Your task to perform on an android device: turn off notifications settings in the gmail app Image 0: 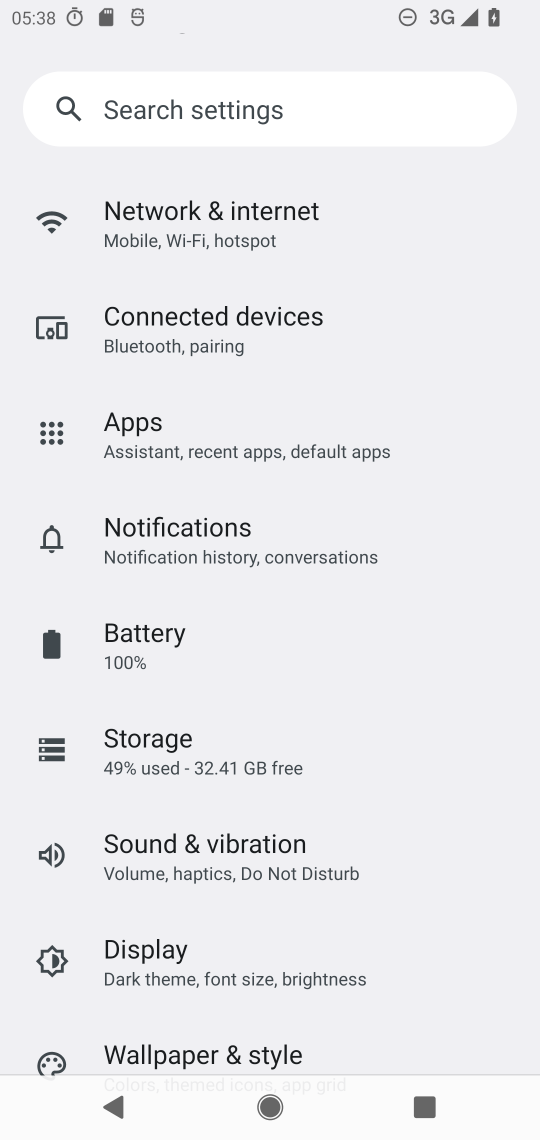
Step 0: press home button
Your task to perform on an android device: turn off notifications settings in the gmail app Image 1: 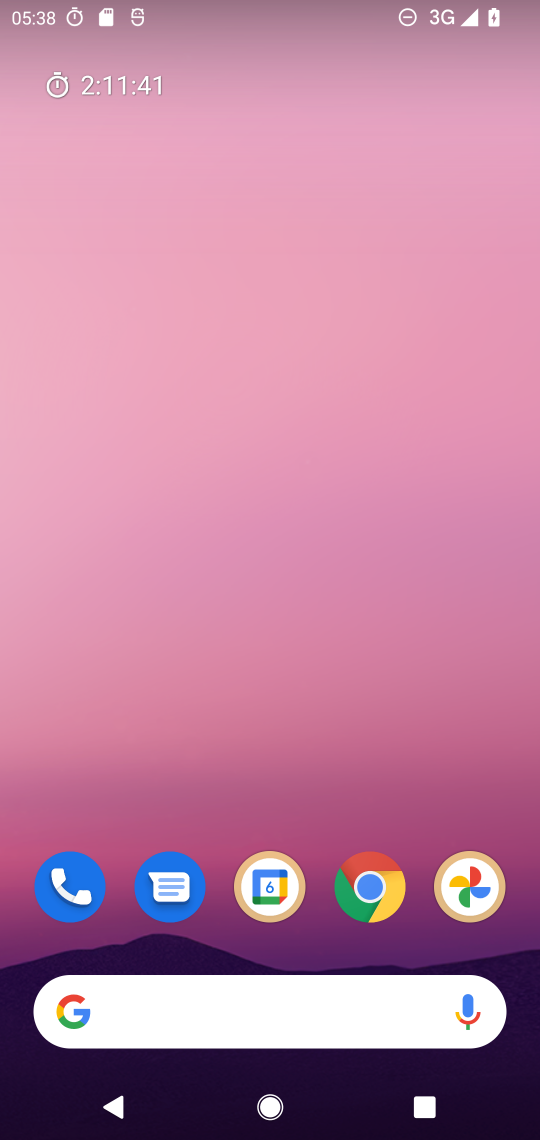
Step 1: drag from (438, 756) to (449, 175)
Your task to perform on an android device: turn off notifications settings in the gmail app Image 2: 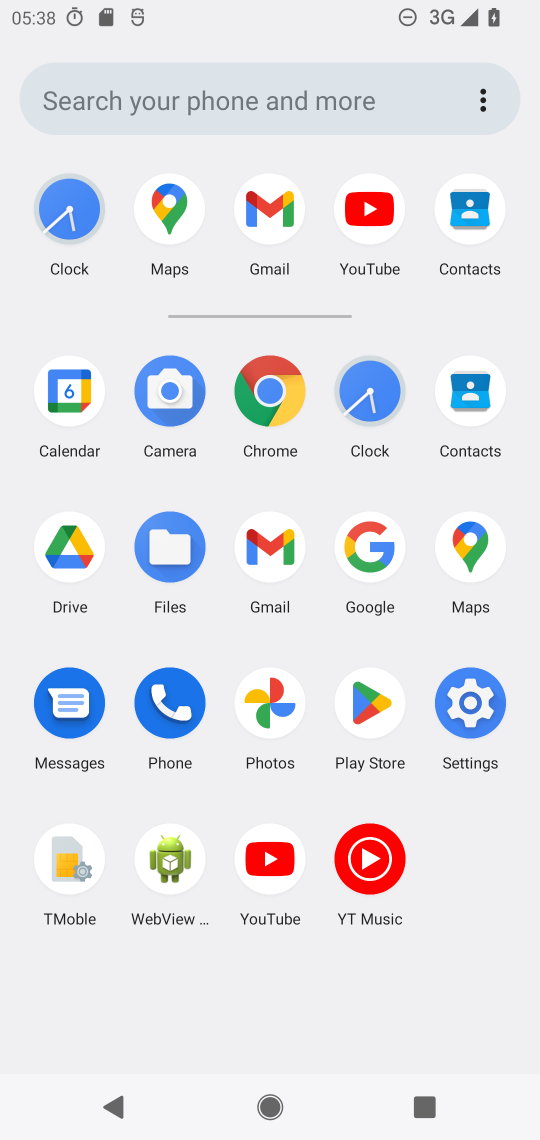
Step 2: click (268, 547)
Your task to perform on an android device: turn off notifications settings in the gmail app Image 3: 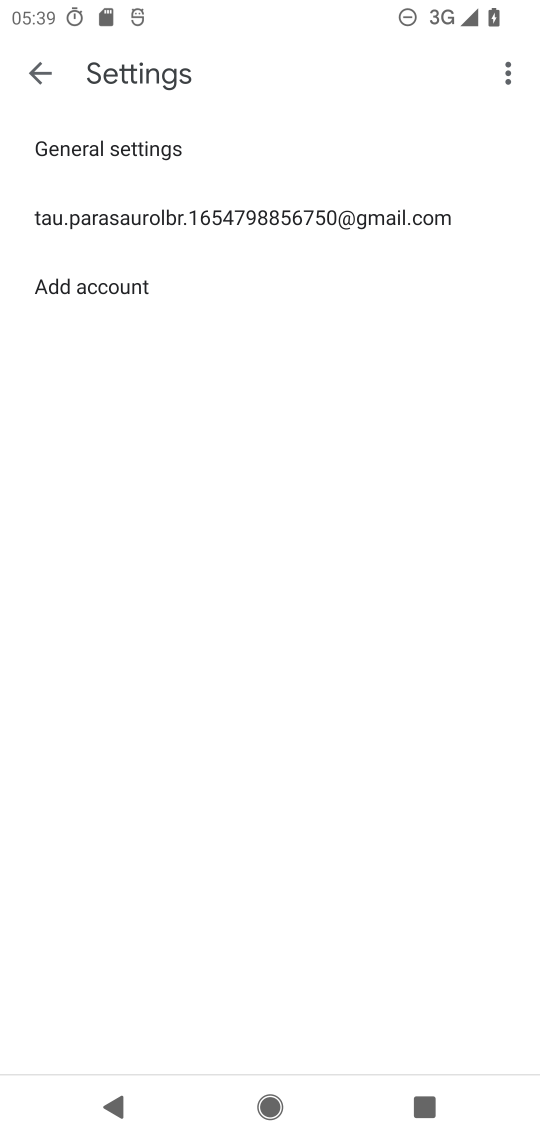
Step 3: click (270, 222)
Your task to perform on an android device: turn off notifications settings in the gmail app Image 4: 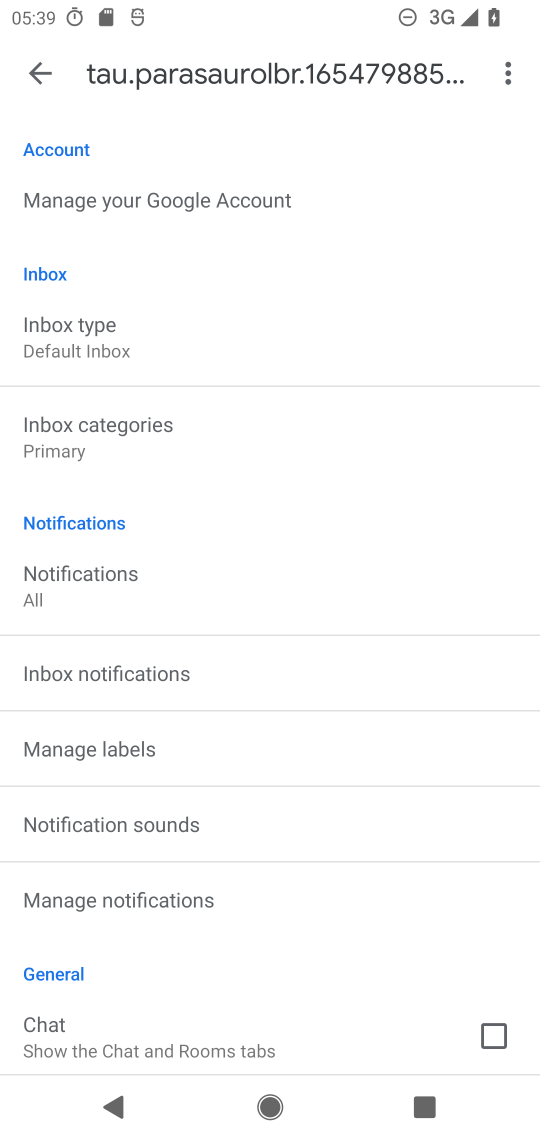
Step 4: drag from (370, 597) to (392, 427)
Your task to perform on an android device: turn off notifications settings in the gmail app Image 5: 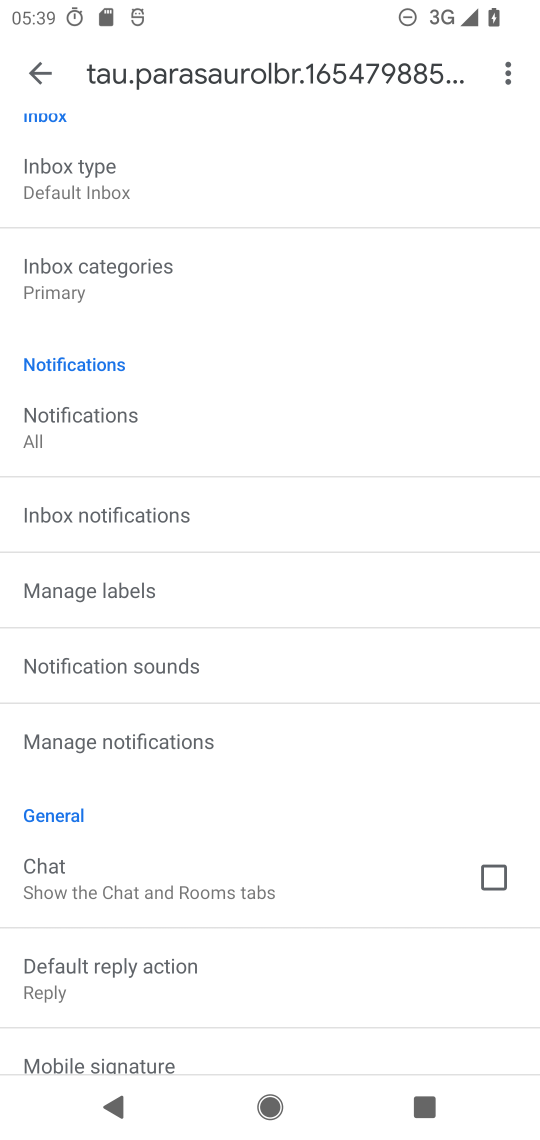
Step 5: drag from (406, 722) to (435, 581)
Your task to perform on an android device: turn off notifications settings in the gmail app Image 6: 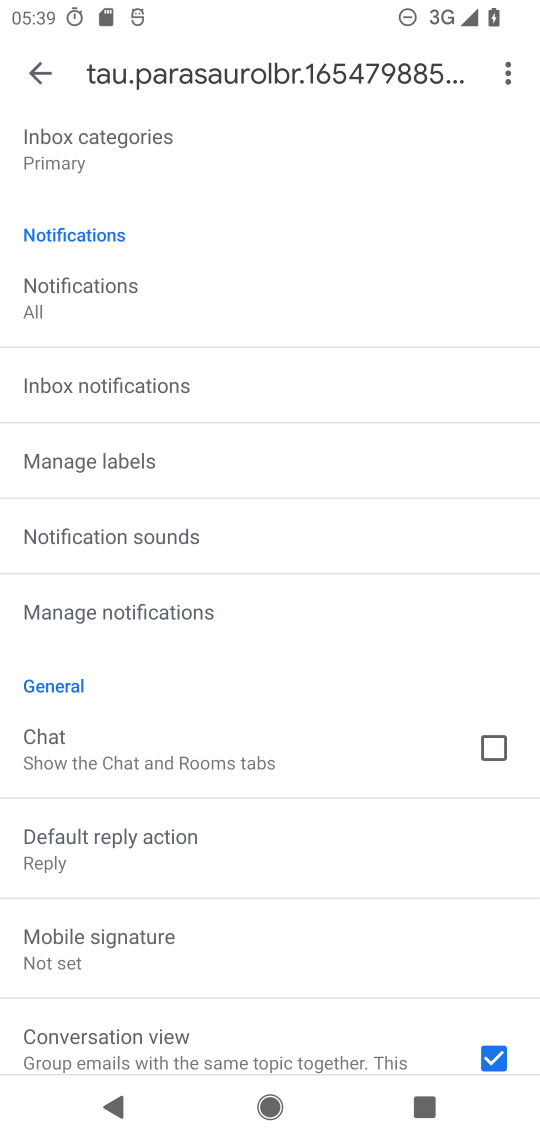
Step 6: drag from (420, 805) to (423, 577)
Your task to perform on an android device: turn off notifications settings in the gmail app Image 7: 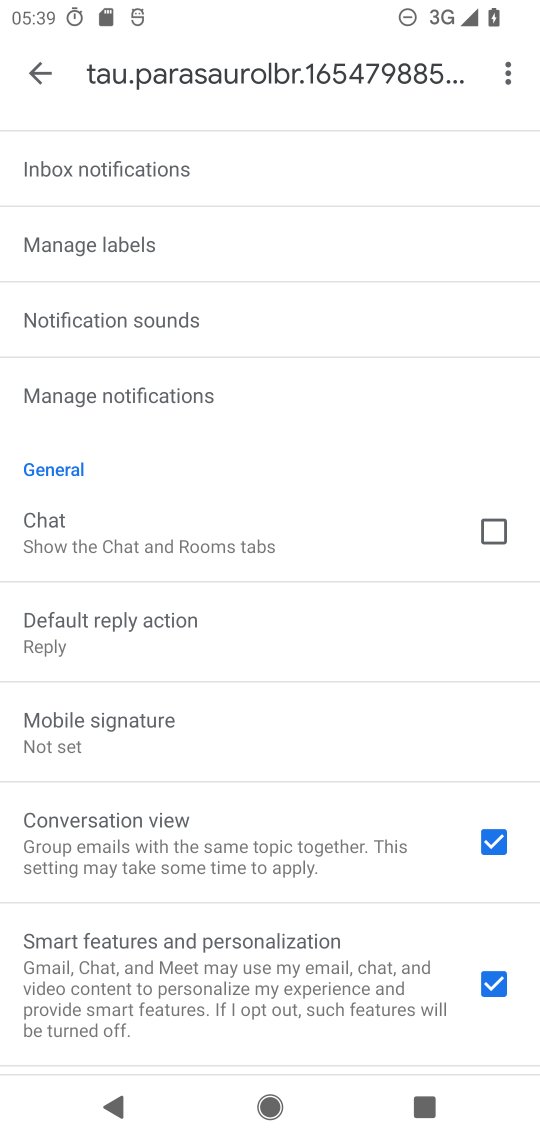
Step 7: drag from (345, 668) to (355, 537)
Your task to perform on an android device: turn off notifications settings in the gmail app Image 8: 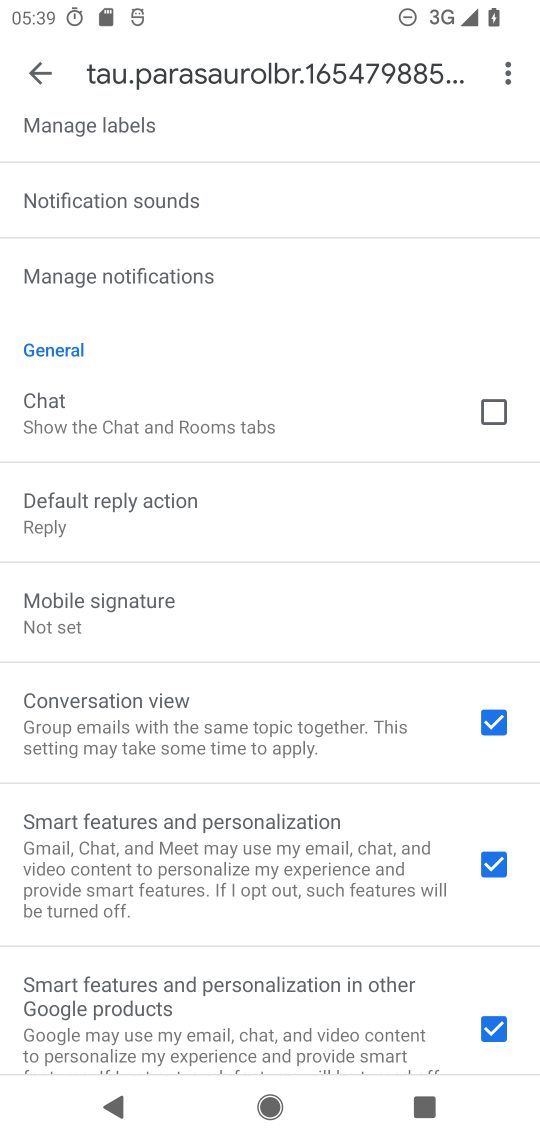
Step 8: click (352, 285)
Your task to perform on an android device: turn off notifications settings in the gmail app Image 9: 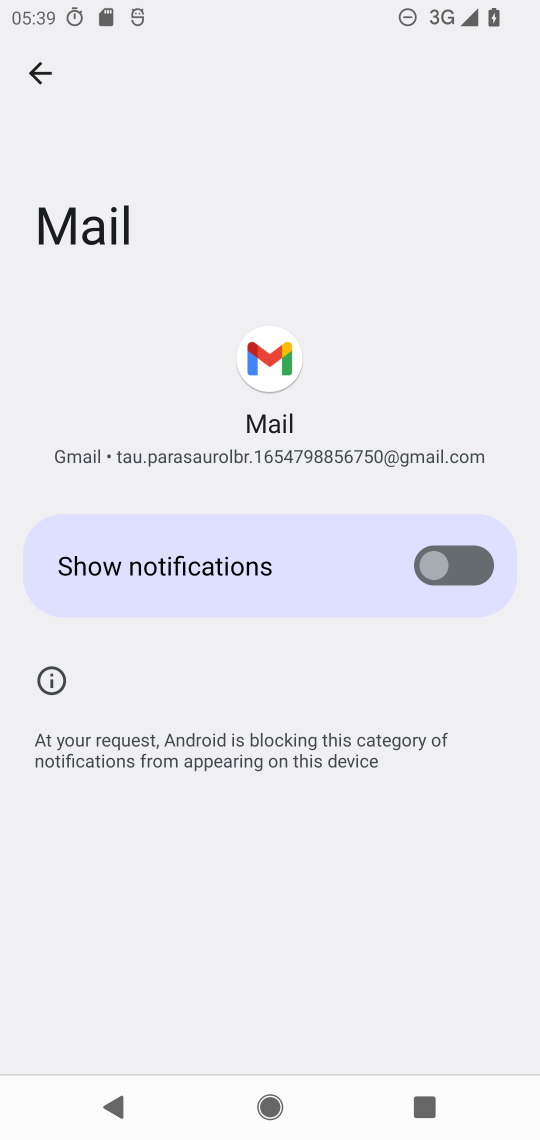
Step 9: task complete